Your task to perform on an android device: What is the news today? Image 0: 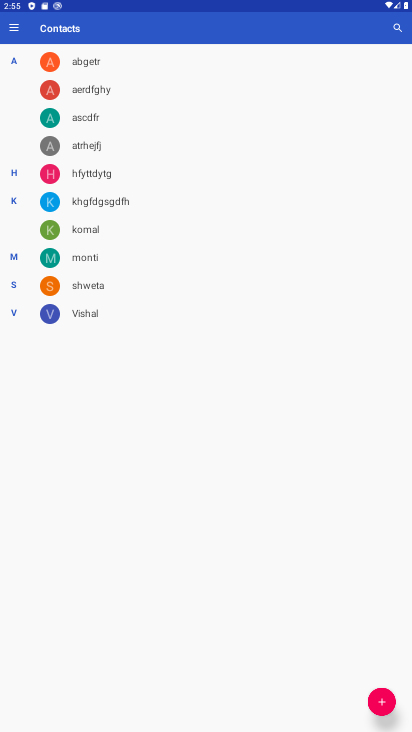
Step 0: press home button
Your task to perform on an android device: What is the news today? Image 1: 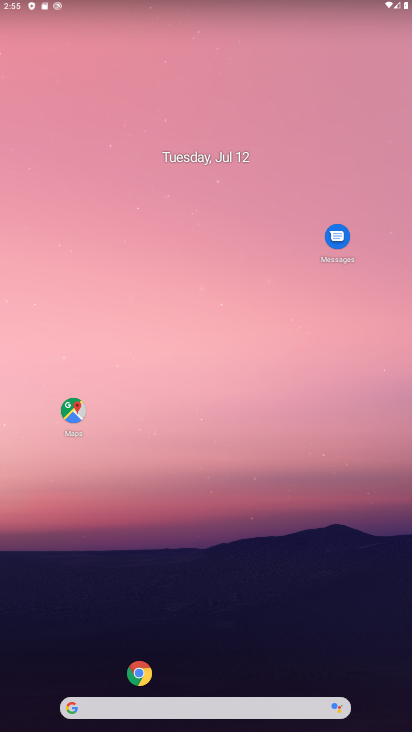
Step 1: click (132, 700)
Your task to perform on an android device: What is the news today? Image 2: 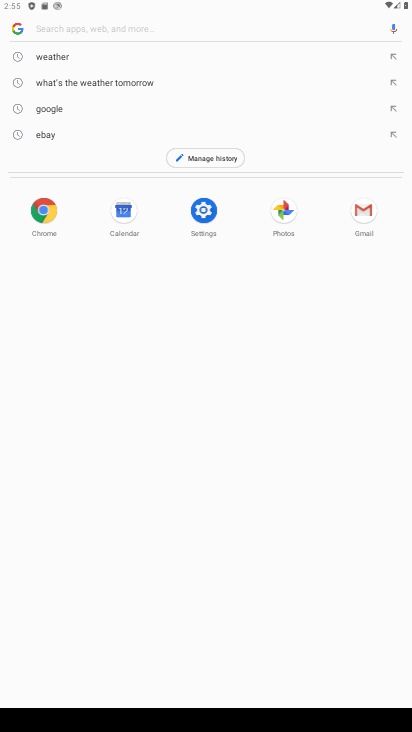
Step 2: type "What is the news today?"
Your task to perform on an android device: What is the news today? Image 3: 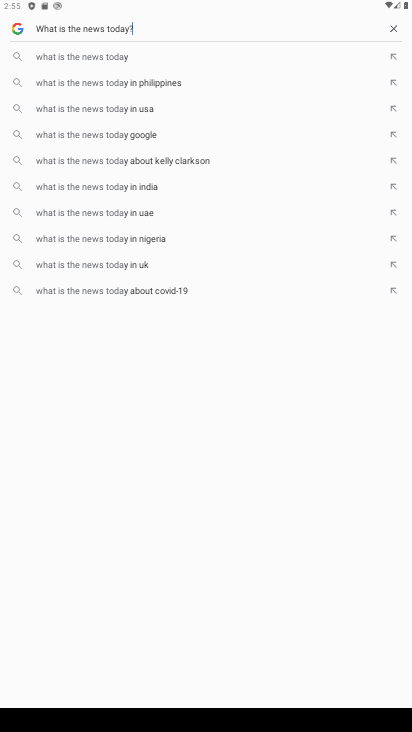
Step 3: type ""
Your task to perform on an android device: What is the news today? Image 4: 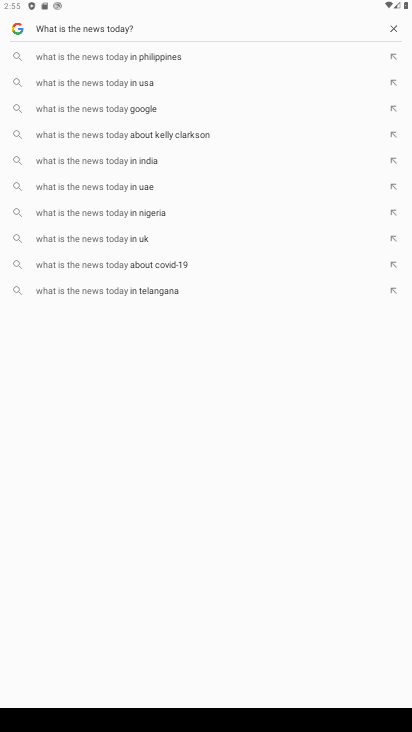
Step 4: type ""
Your task to perform on an android device: What is the news today? Image 5: 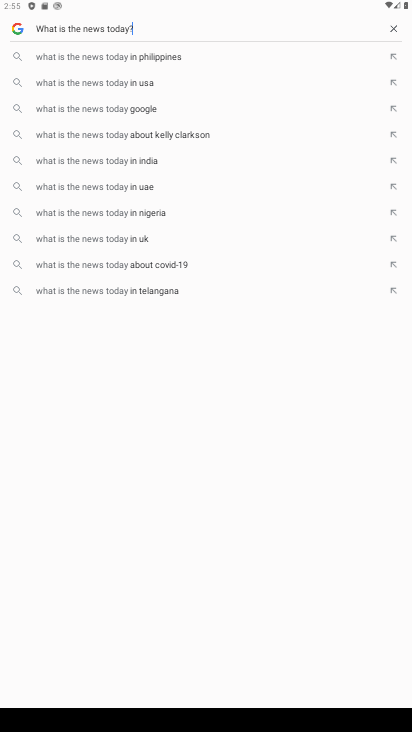
Step 5: type ""
Your task to perform on an android device: What is the news today? Image 6: 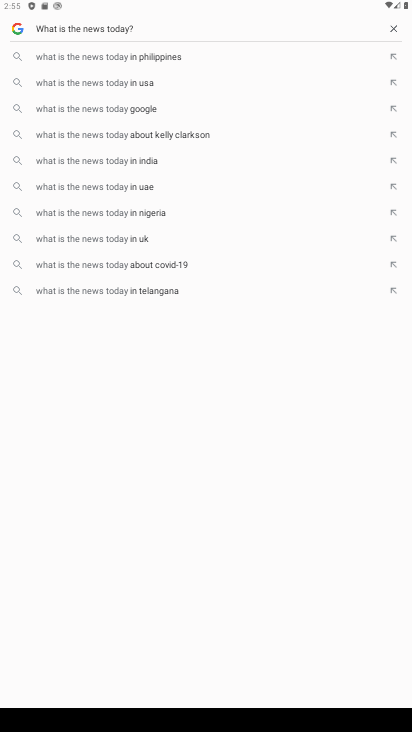
Step 6: type ""
Your task to perform on an android device: What is the news today? Image 7: 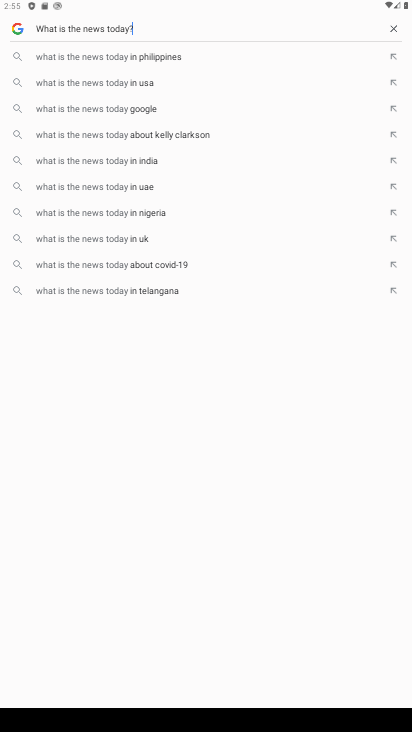
Step 7: type ""
Your task to perform on an android device: What is the news today? Image 8: 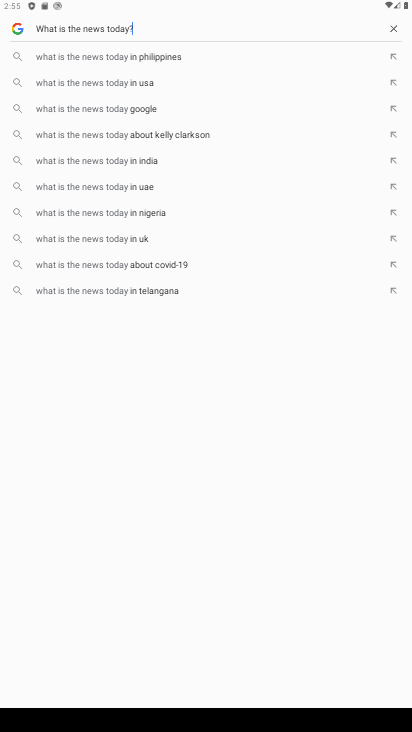
Step 8: task complete